Your task to perform on an android device: Open Amazon Image 0: 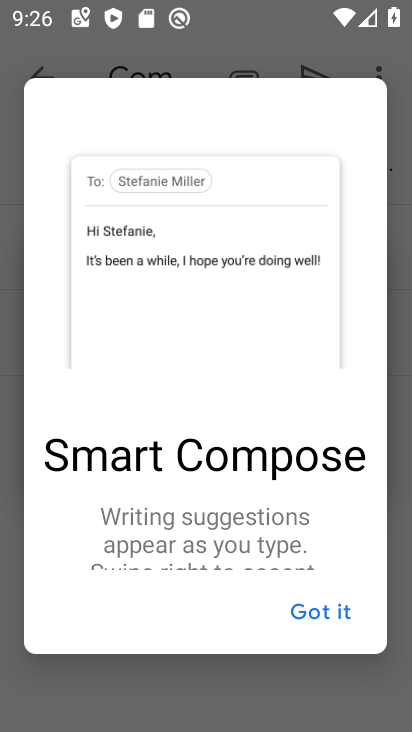
Step 0: press home button
Your task to perform on an android device: Open Amazon Image 1: 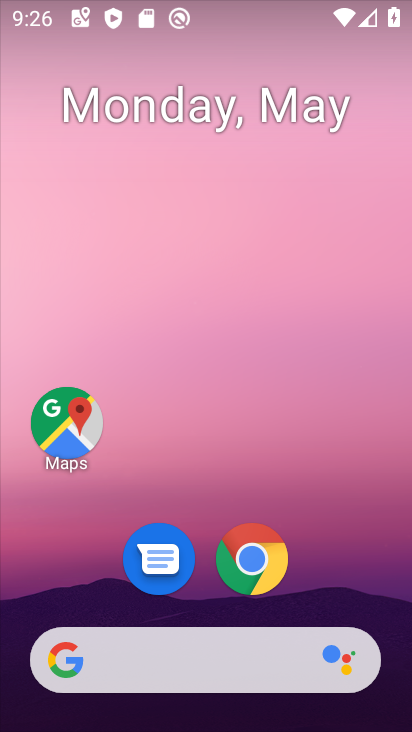
Step 1: click (255, 552)
Your task to perform on an android device: Open Amazon Image 2: 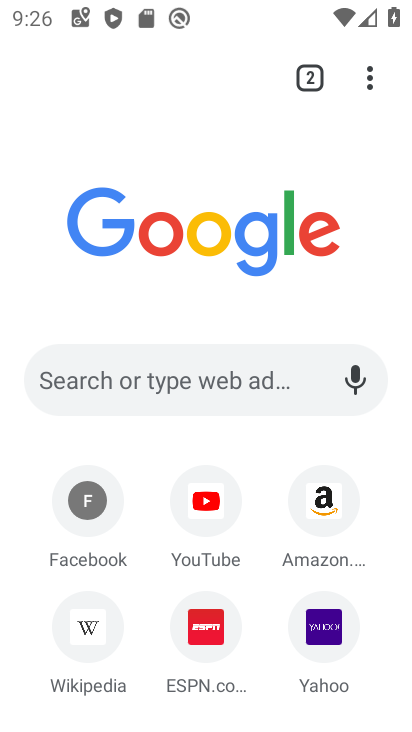
Step 2: click (309, 508)
Your task to perform on an android device: Open Amazon Image 3: 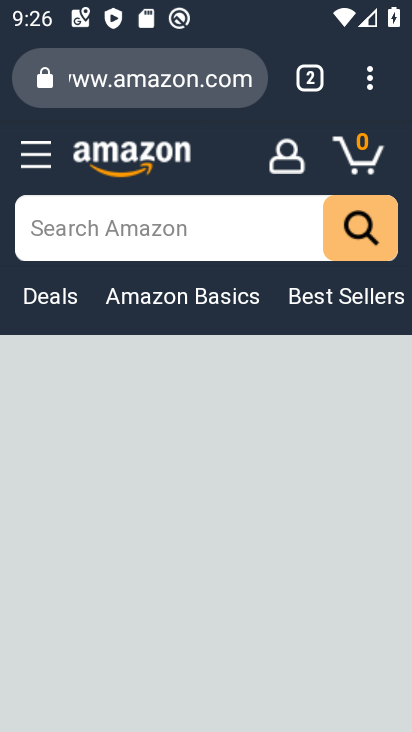
Step 3: task complete